Your task to perform on an android device: Add alienware area 51 to the cart on newegg Image 0: 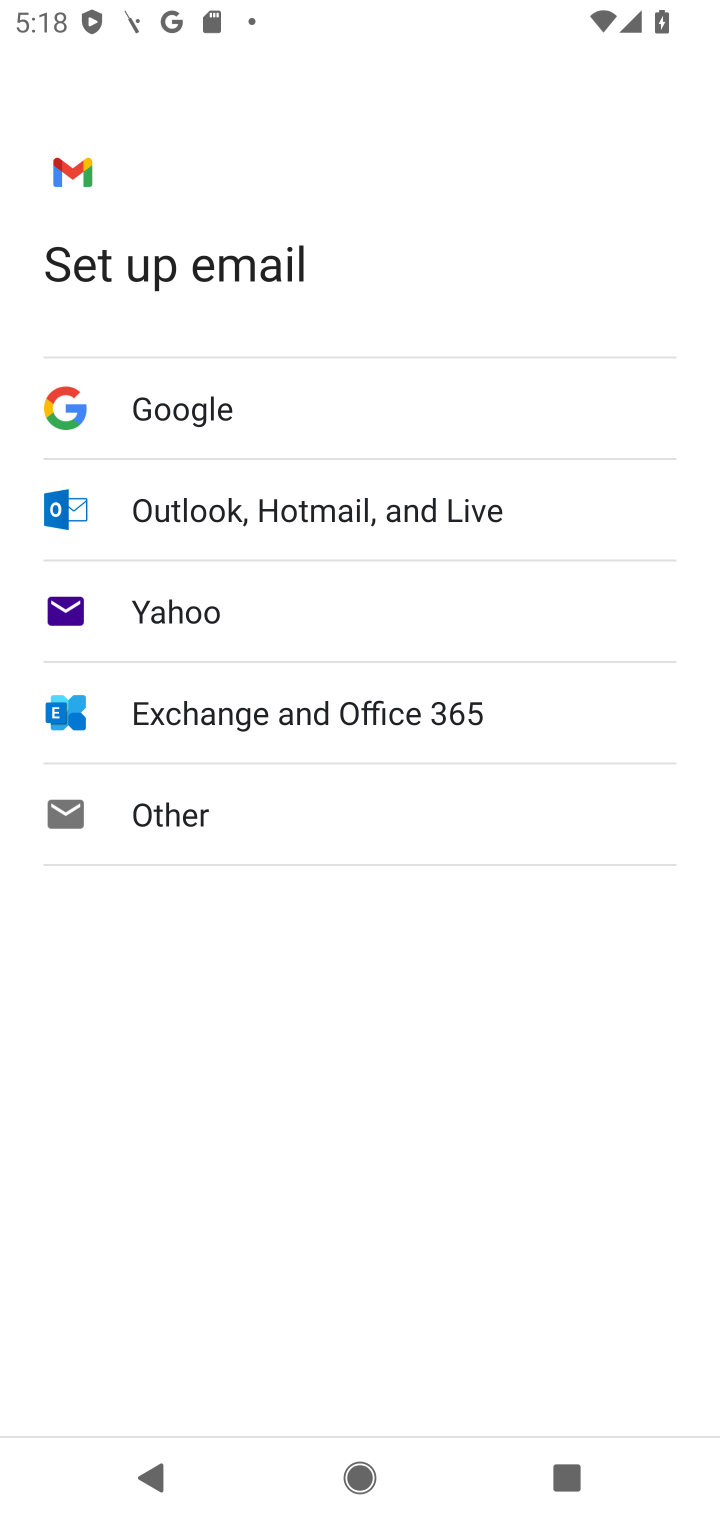
Step 0: press home button
Your task to perform on an android device: Add alienware area 51 to the cart on newegg Image 1: 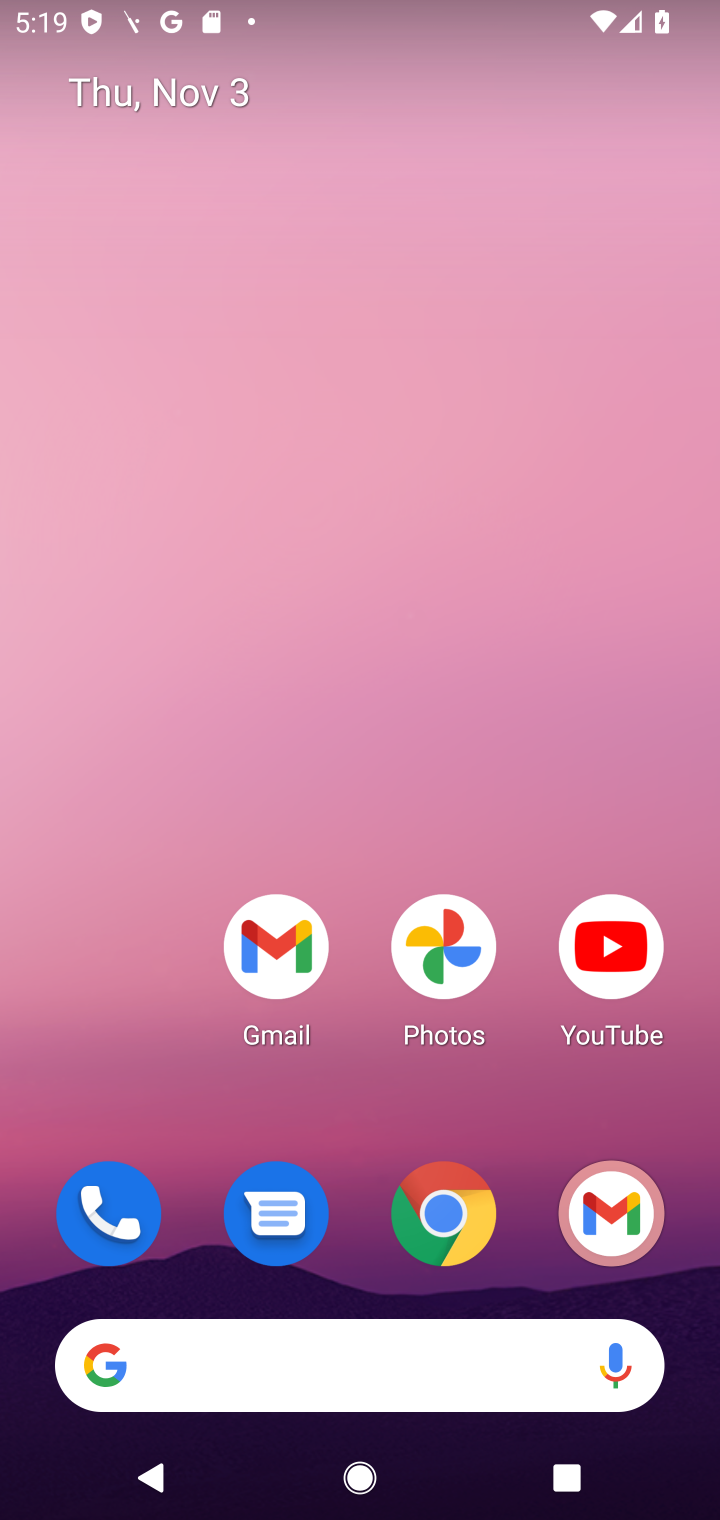
Step 1: click (432, 1227)
Your task to perform on an android device: Add alienware area 51 to the cart on newegg Image 2: 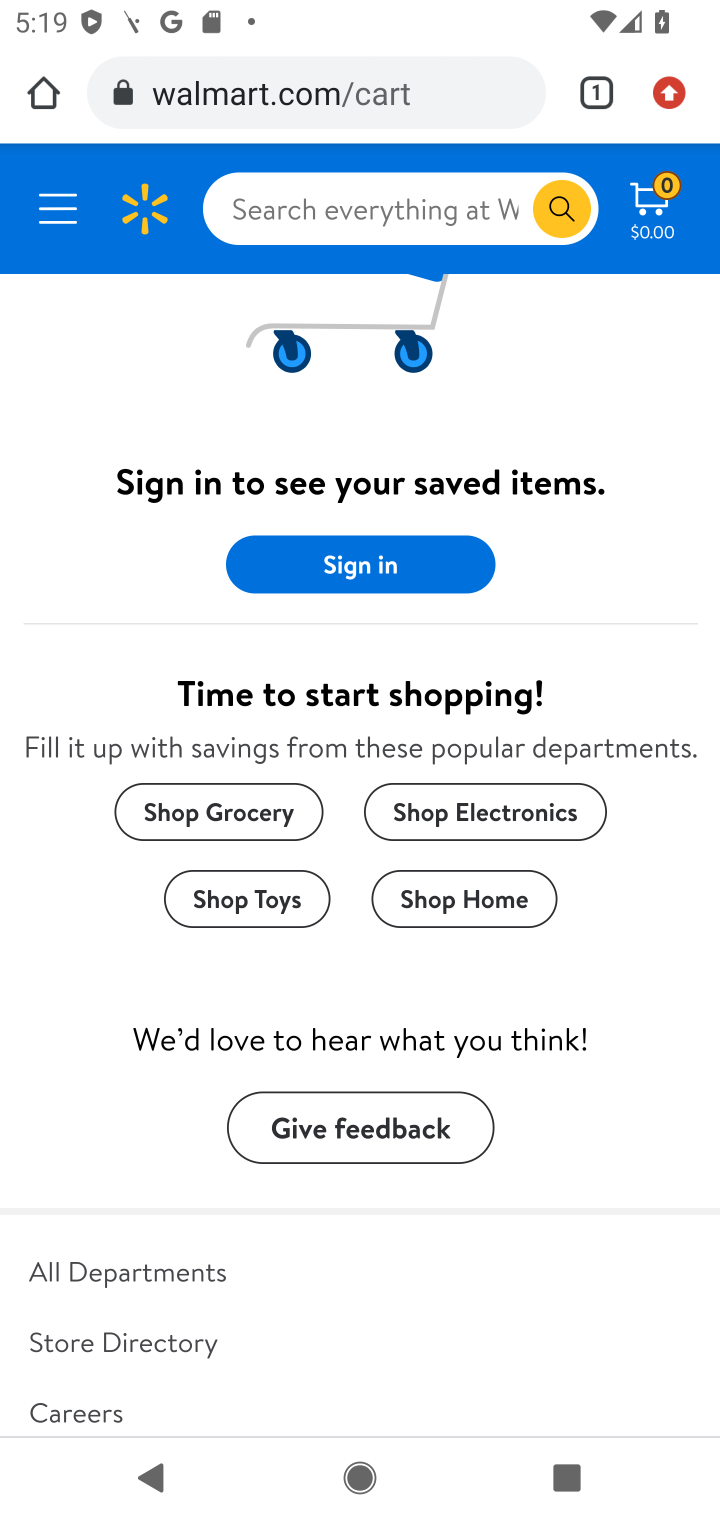
Step 2: click (302, 101)
Your task to perform on an android device: Add alienware area 51 to the cart on newegg Image 3: 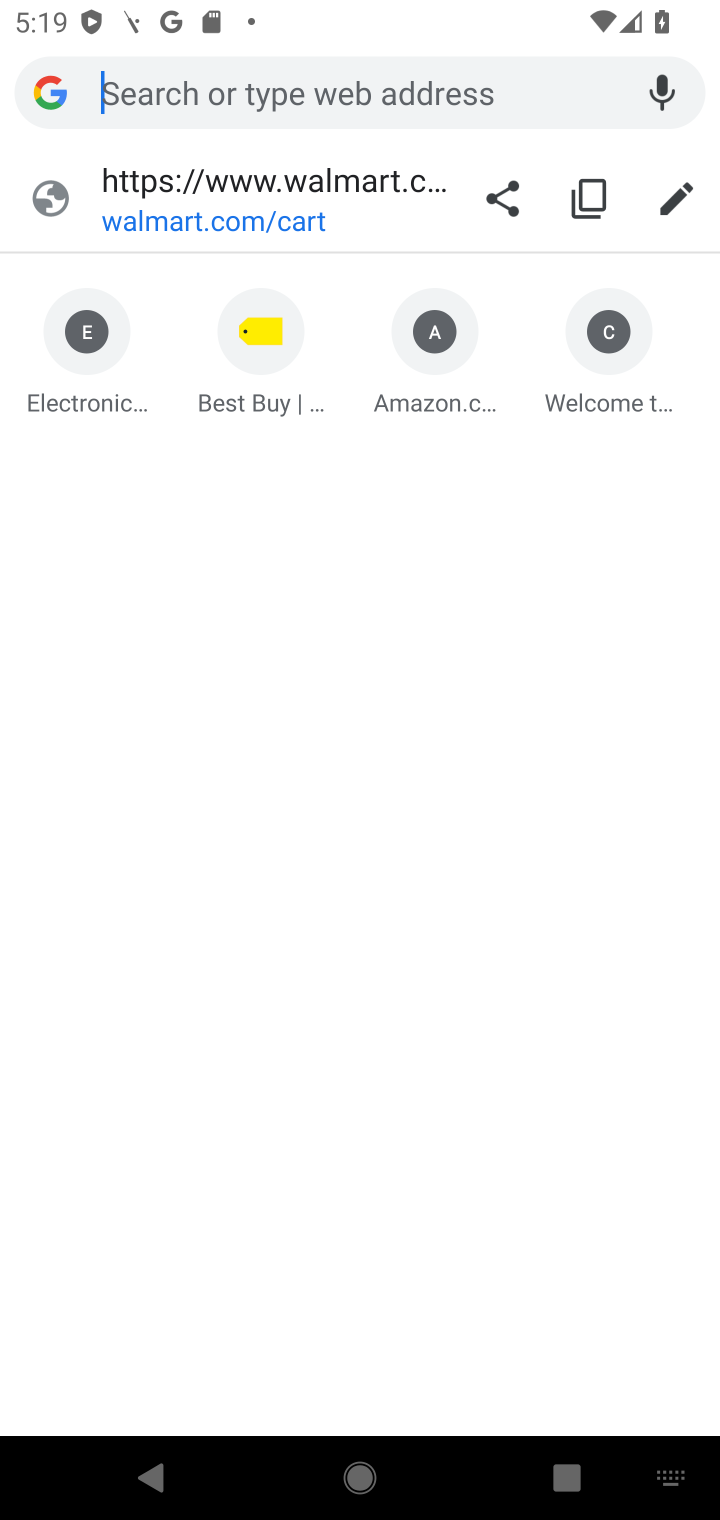
Step 3: type "newegg.com"
Your task to perform on an android device: Add alienware area 51 to the cart on newegg Image 4: 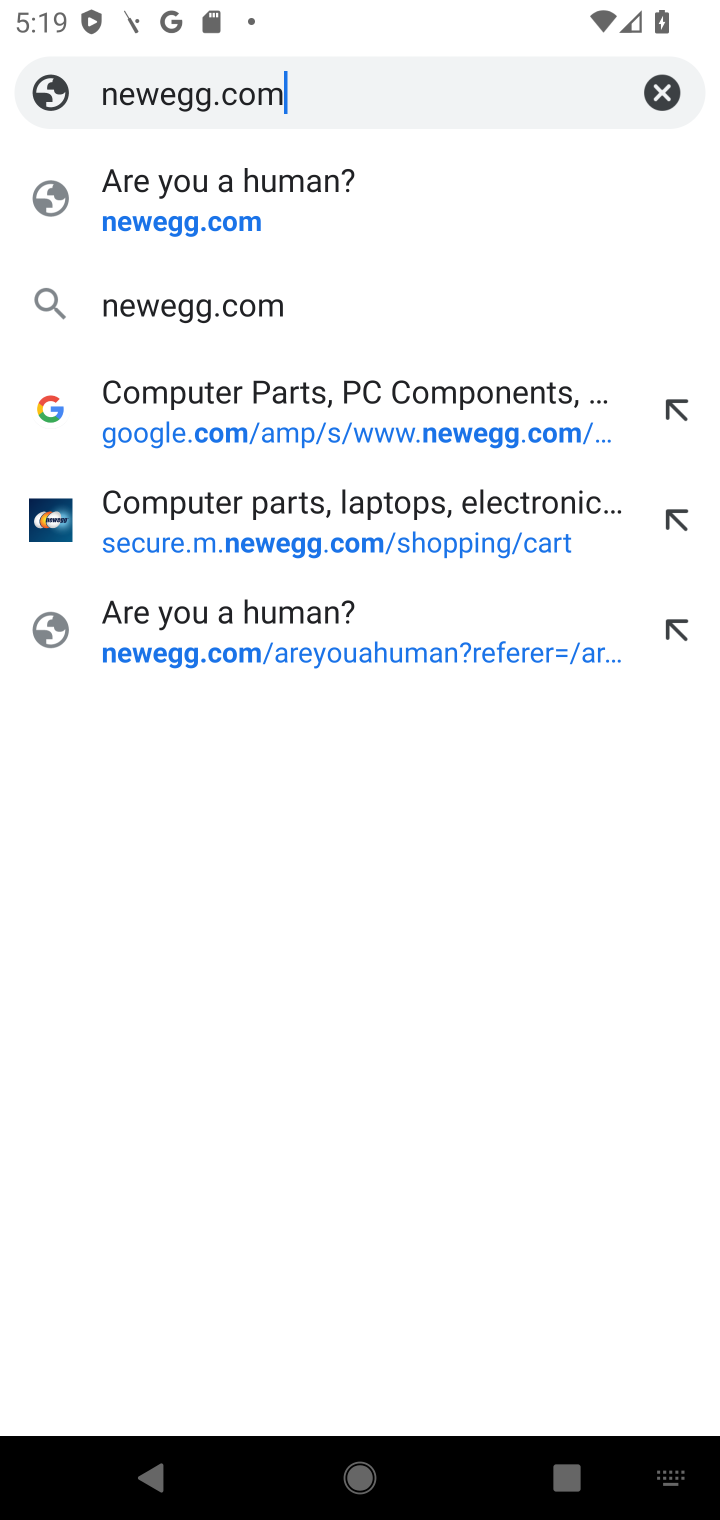
Step 4: click (218, 315)
Your task to perform on an android device: Add alienware area 51 to the cart on newegg Image 5: 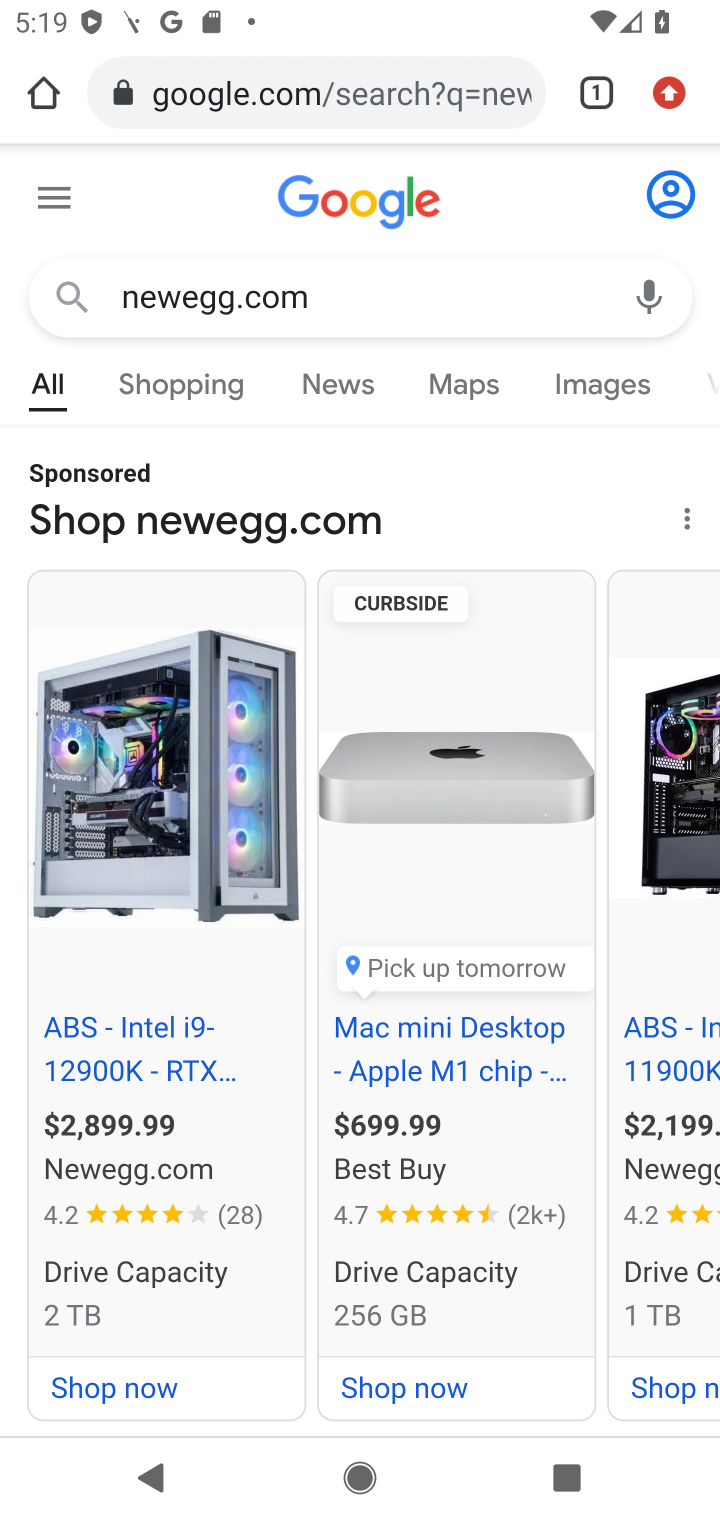
Step 5: drag from (253, 716) to (291, 218)
Your task to perform on an android device: Add alienware area 51 to the cart on newegg Image 6: 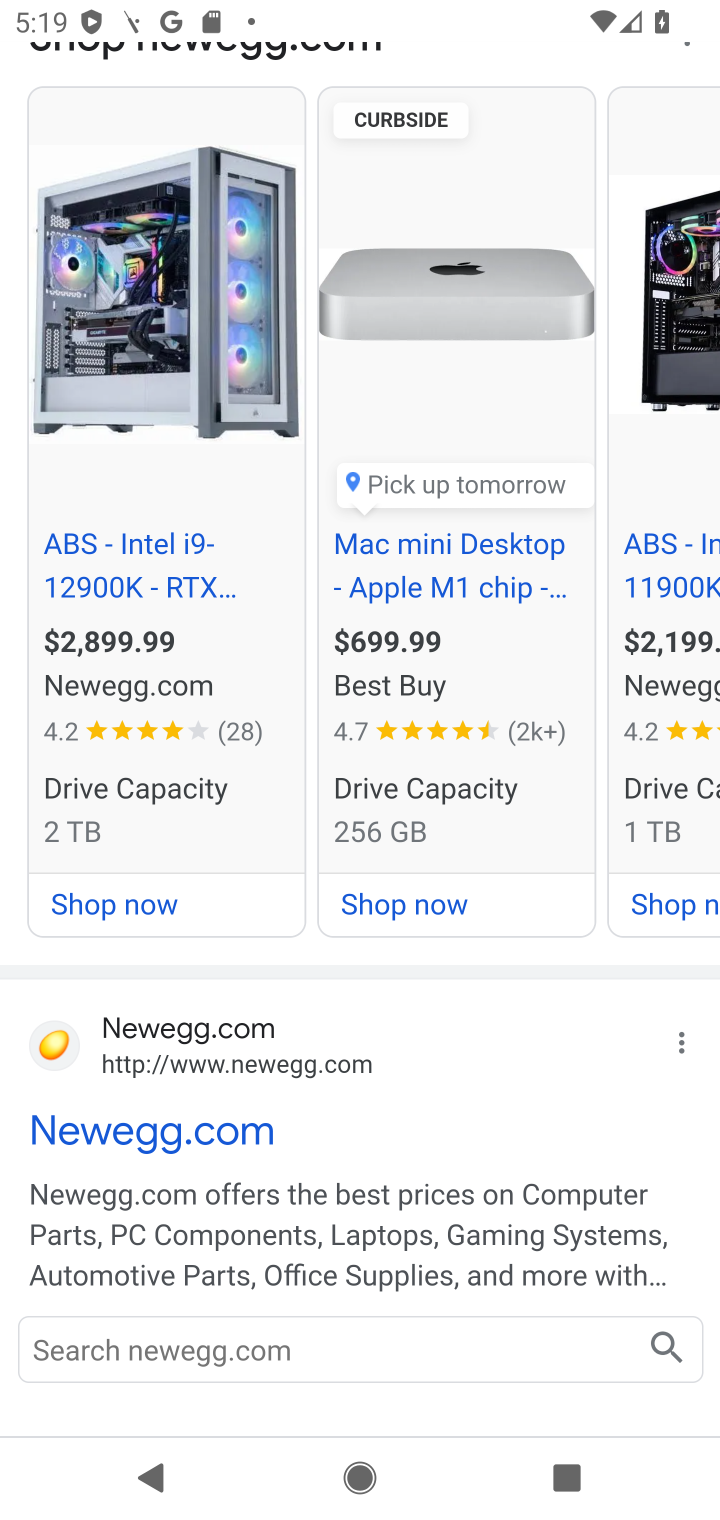
Step 6: click (158, 1134)
Your task to perform on an android device: Add alienware area 51 to the cart on newegg Image 7: 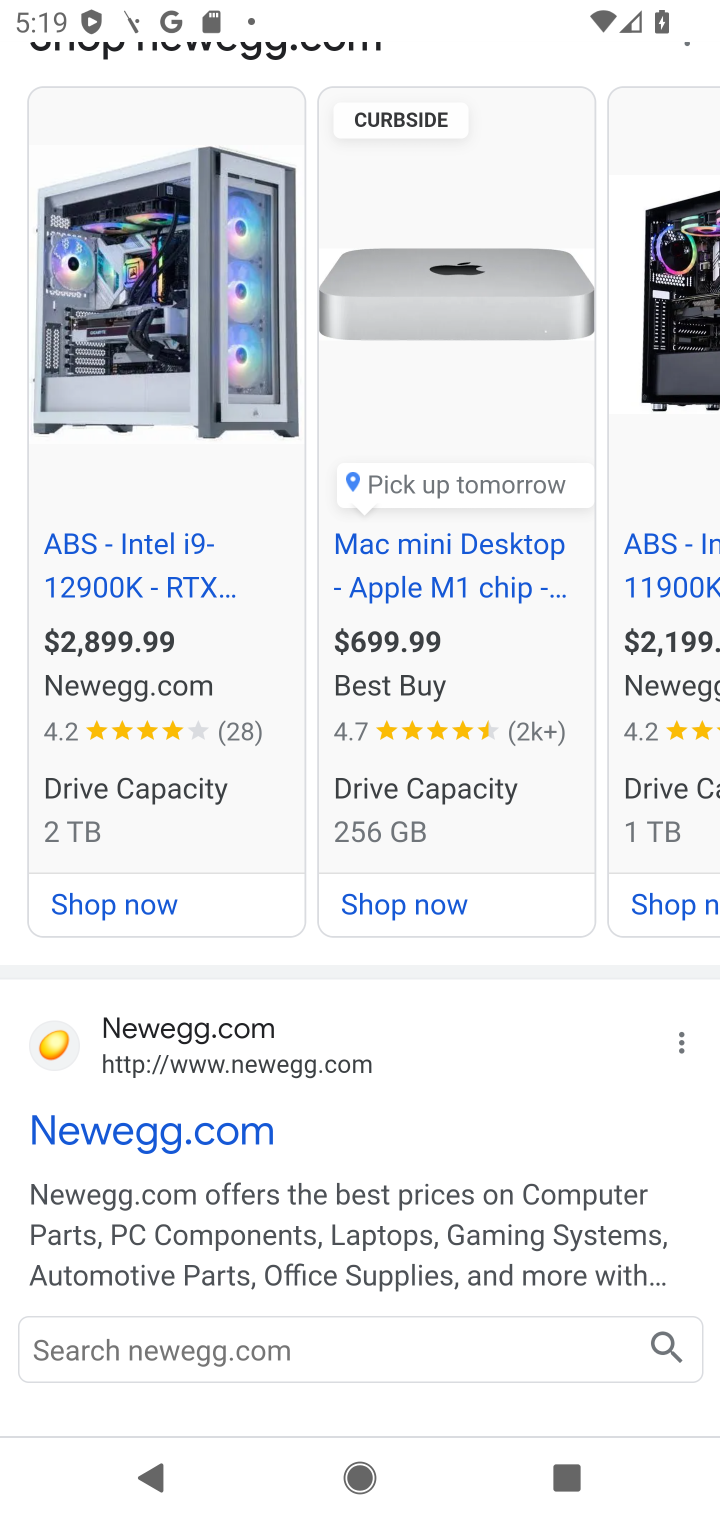
Step 7: click (187, 1130)
Your task to perform on an android device: Add alienware area 51 to the cart on newegg Image 8: 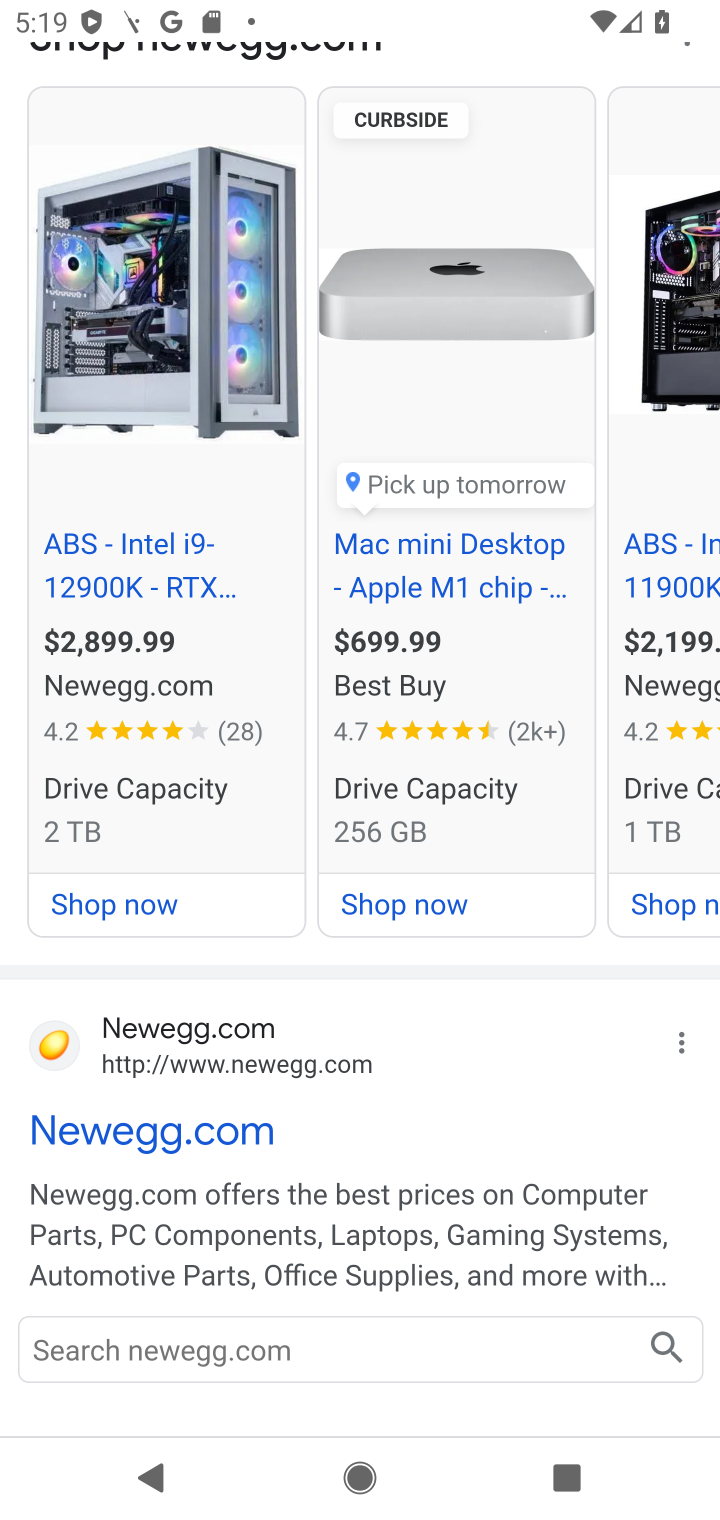
Step 8: click (194, 1126)
Your task to perform on an android device: Add alienware area 51 to the cart on newegg Image 9: 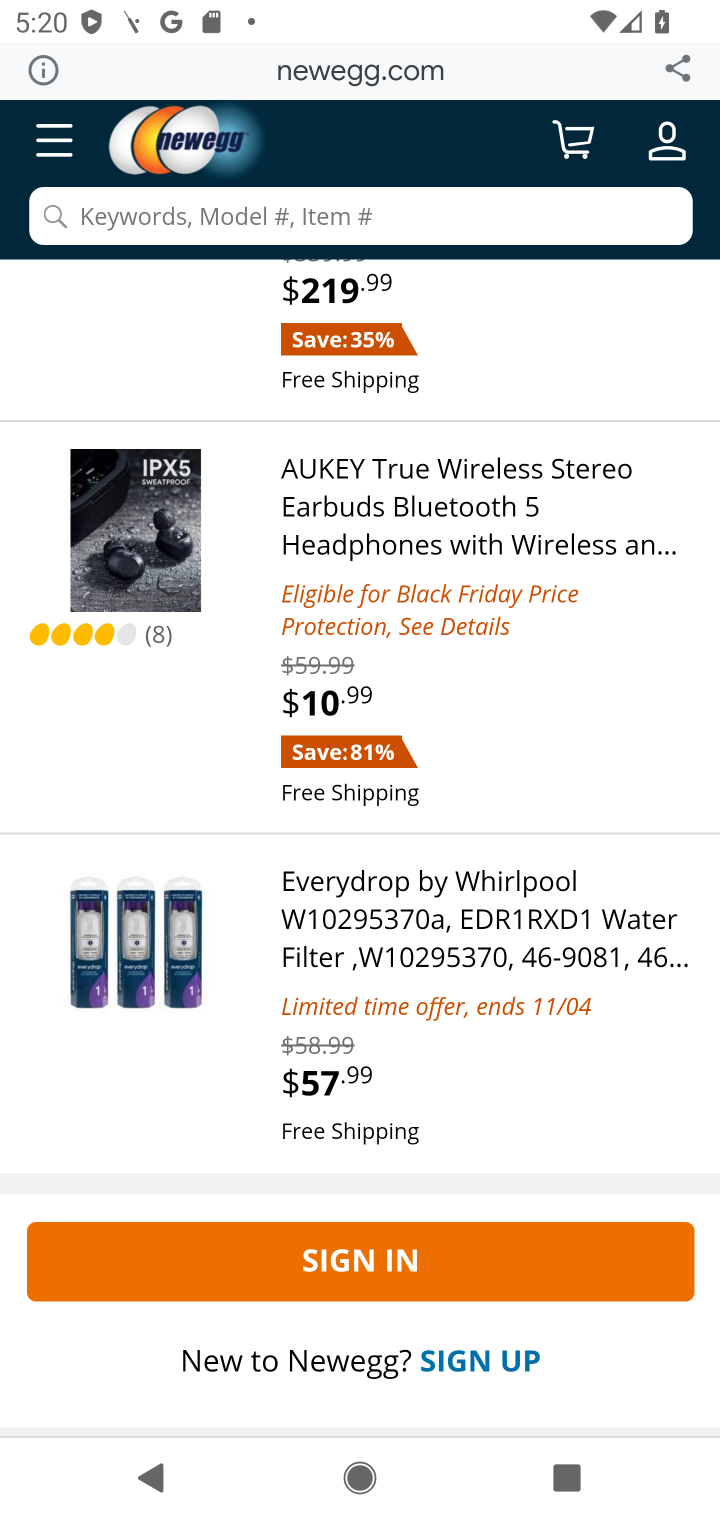
Step 9: click (313, 209)
Your task to perform on an android device: Add alienware area 51 to the cart on newegg Image 10: 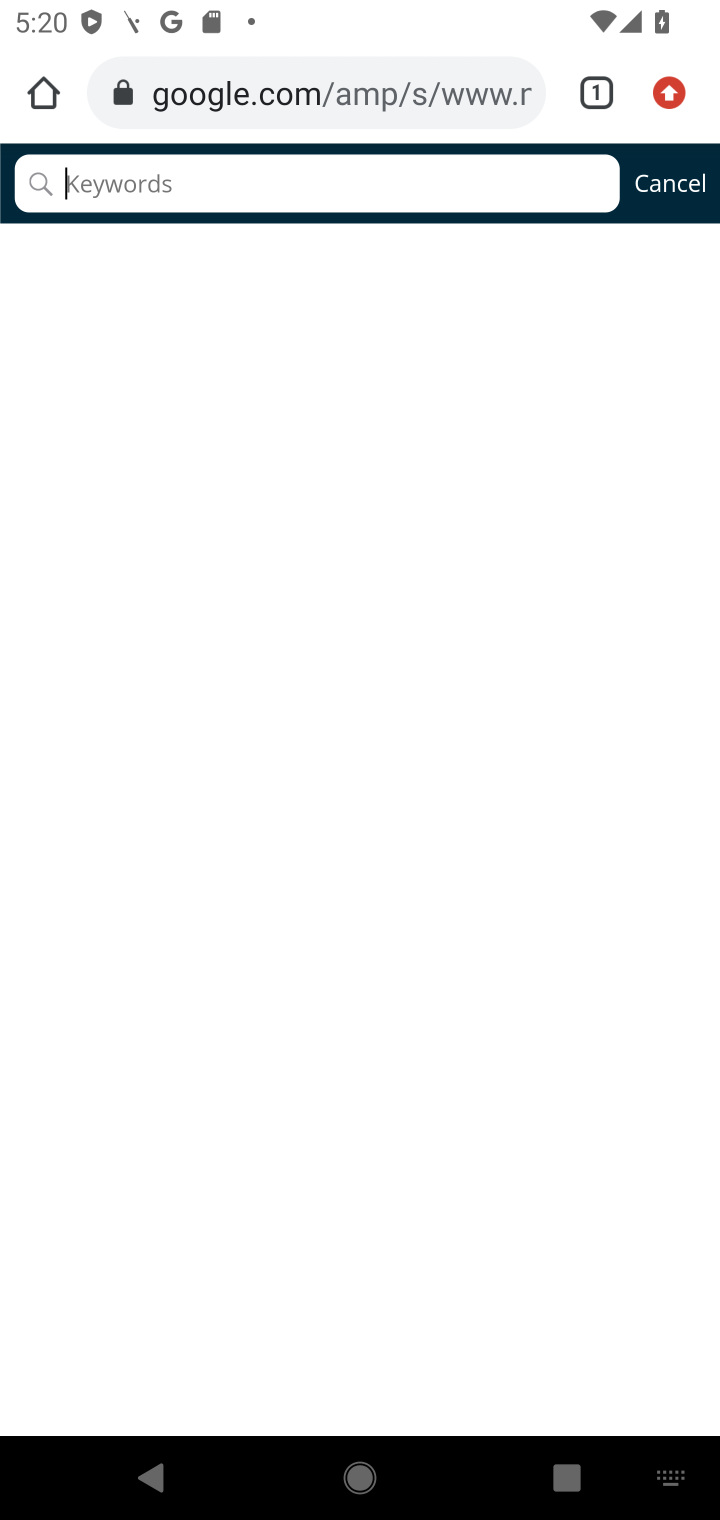
Step 10: type " alienware area 51 "
Your task to perform on an android device: Add alienware area 51 to the cart on newegg Image 11: 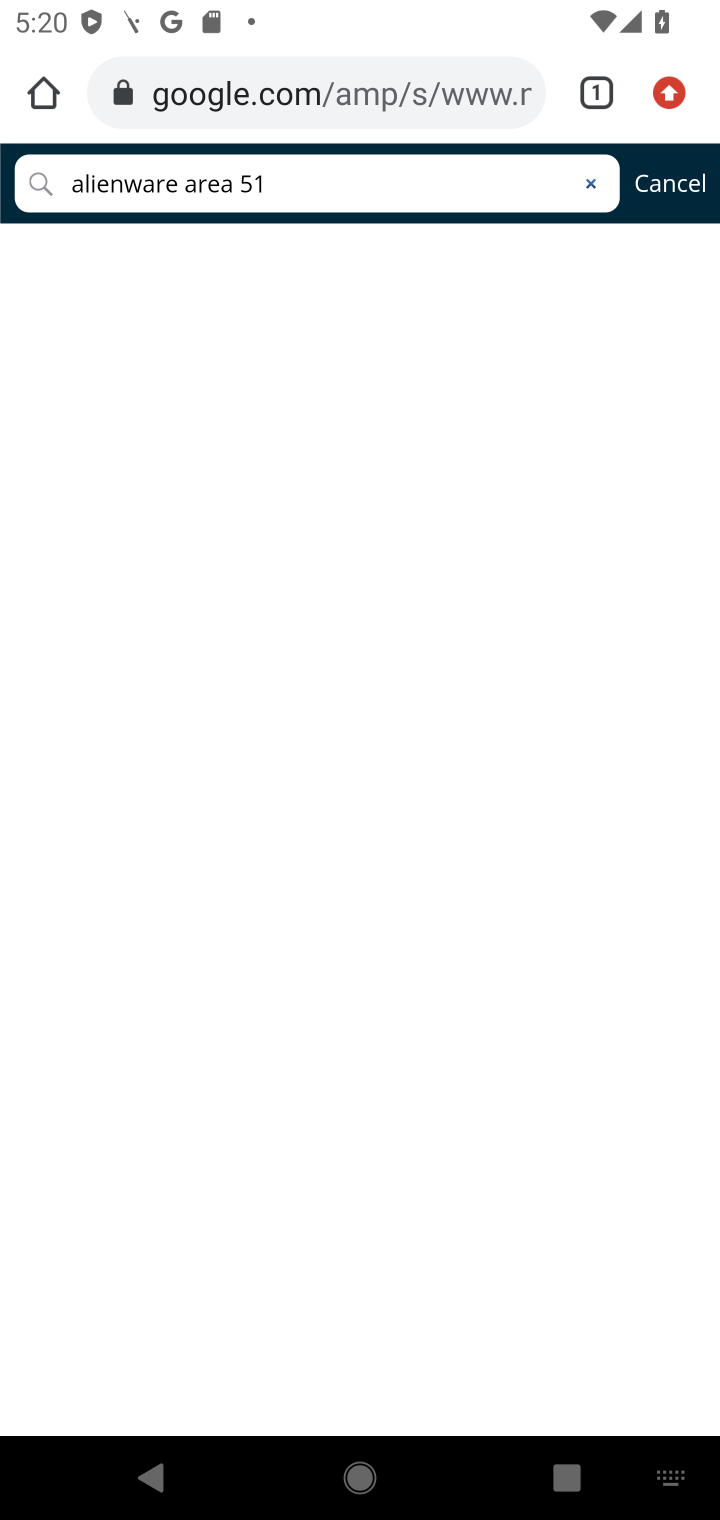
Step 11: click (34, 180)
Your task to perform on an android device: Add alienware area 51 to the cart on newegg Image 12: 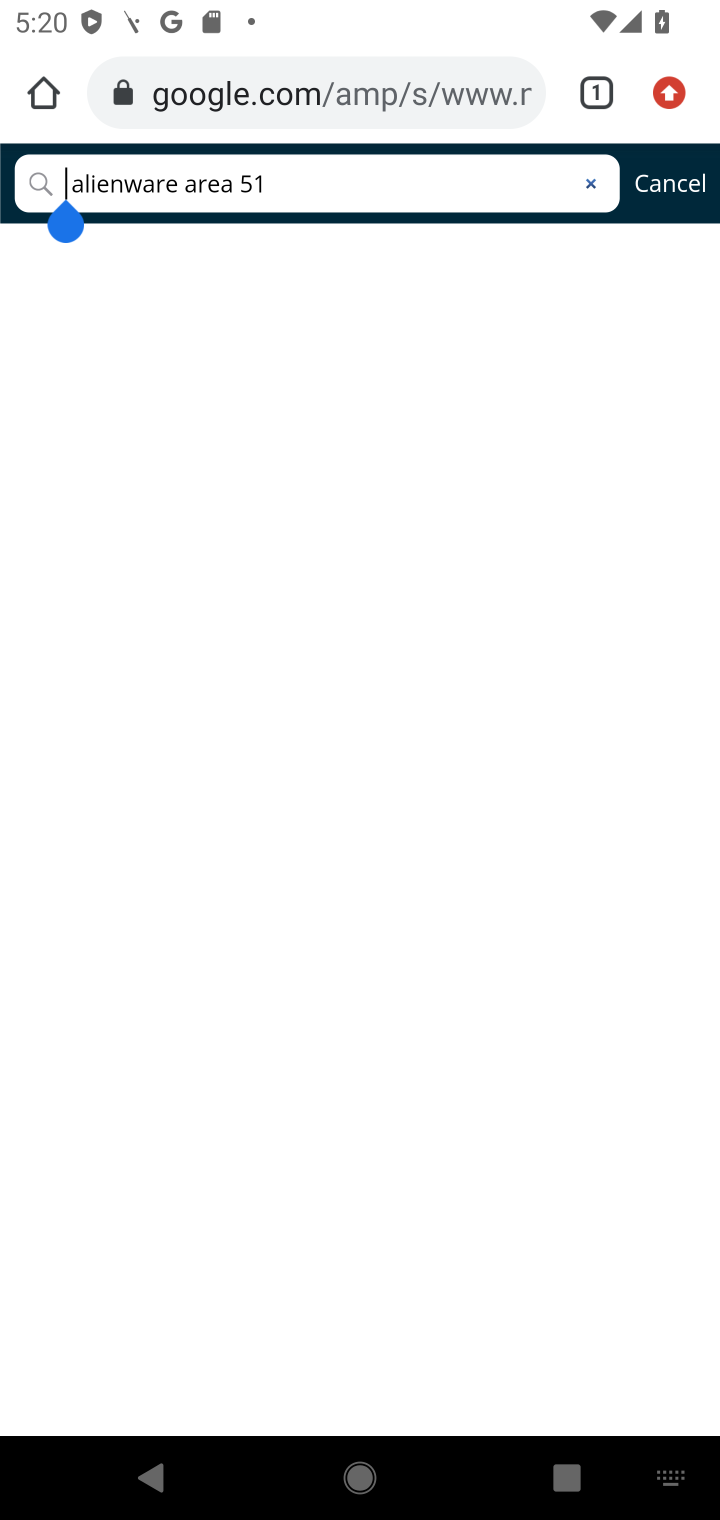
Step 12: task complete